Your task to perform on an android device: Open Wikipedia Image 0: 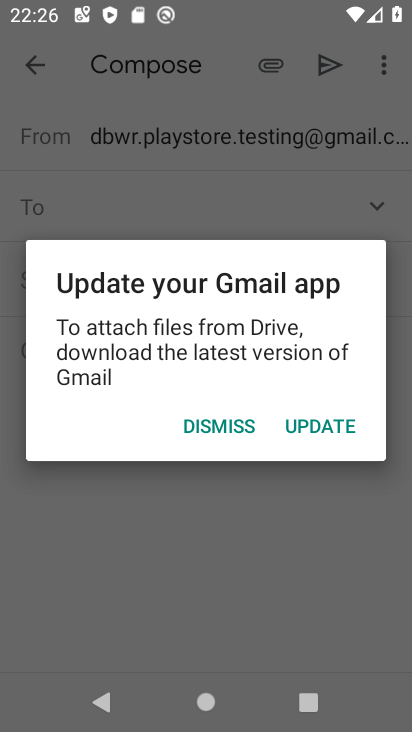
Step 0: press home button
Your task to perform on an android device: Open Wikipedia Image 1: 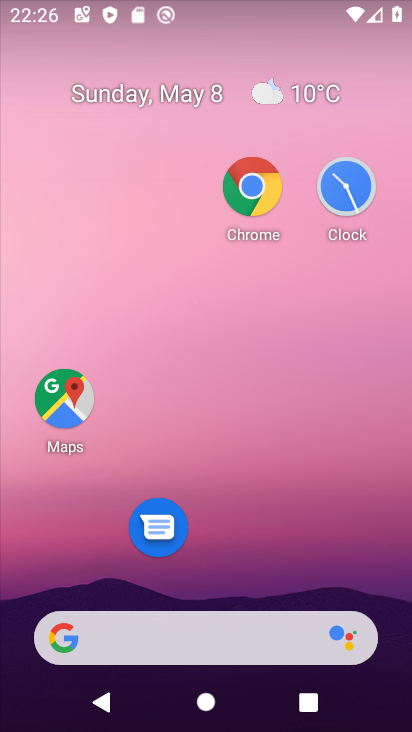
Step 1: drag from (236, 549) to (217, 62)
Your task to perform on an android device: Open Wikipedia Image 2: 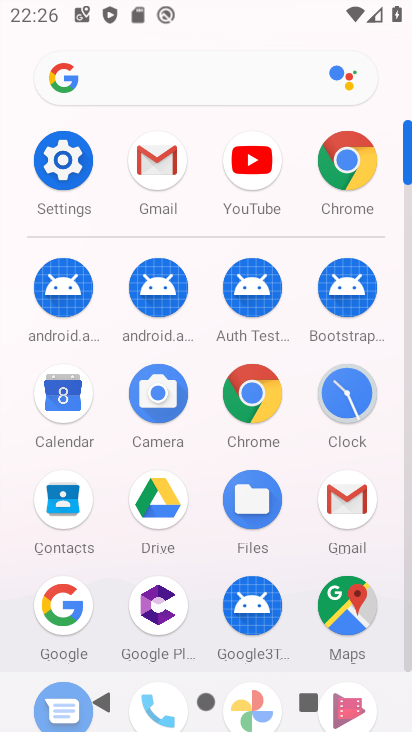
Step 2: drag from (200, 592) to (183, 124)
Your task to perform on an android device: Open Wikipedia Image 3: 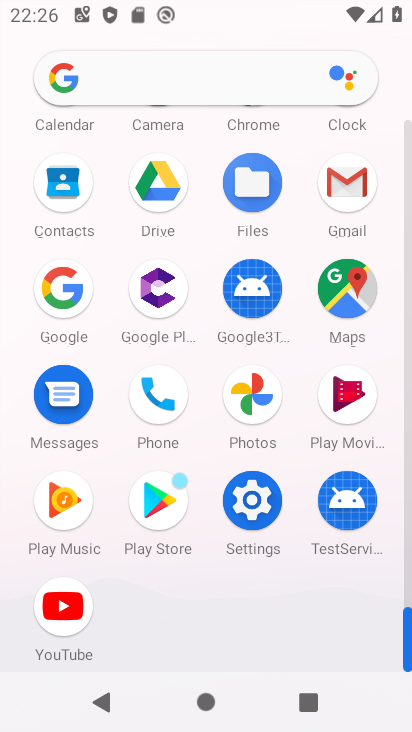
Step 3: drag from (197, 179) to (201, 542)
Your task to perform on an android device: Open Wikipedia Image 4: 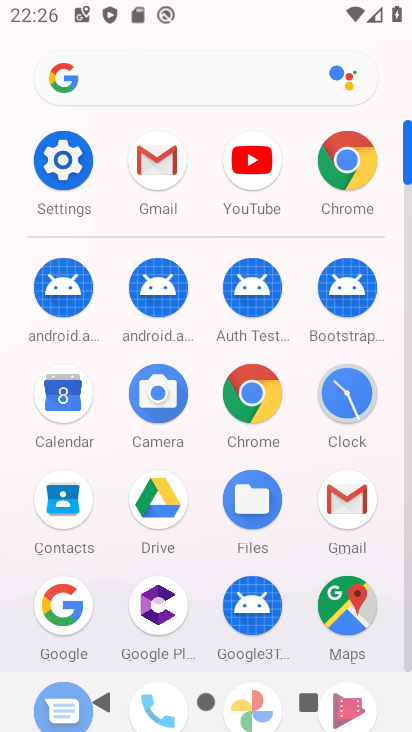
Step 4: click (319, 153)
Your task to perform on an android device: Open Wikipedia Image 5: 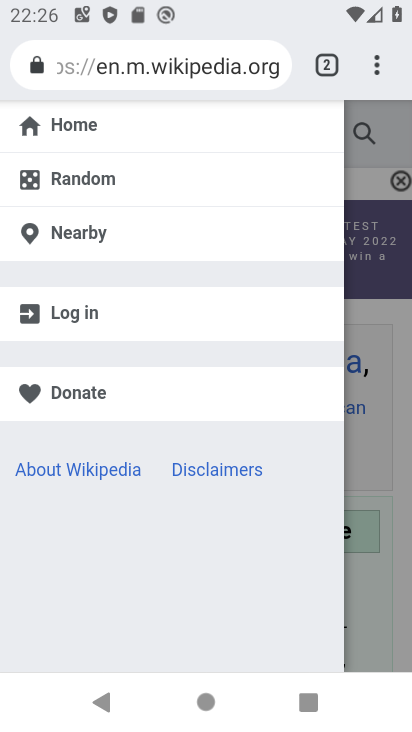
Step 5: click (387, 376)
Your task to perform on an android device: Open Wikipedia Image 6: 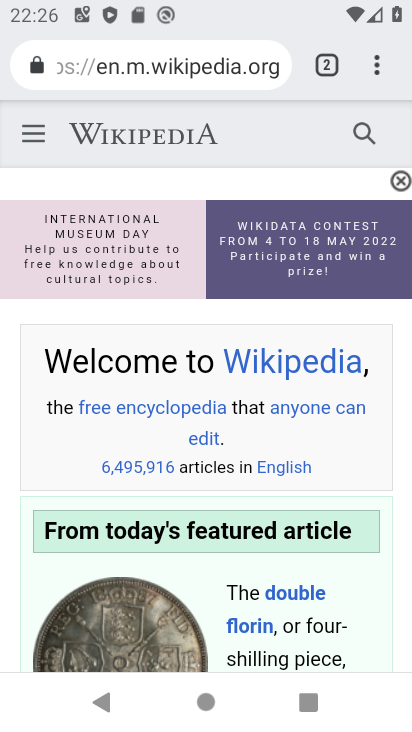
Step 6: task complete